Your task to perform on an android device: turn off javascript in the chrome app Image 0: 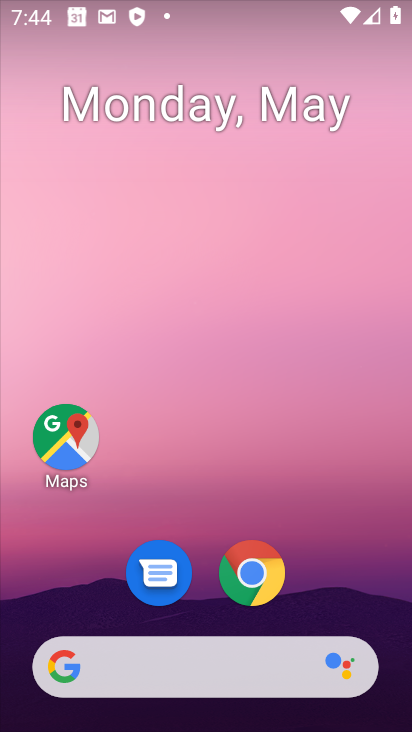
Step 0: drag from (228, 651) to (250, 261)
Your task to perform on an android device: turn off javascript in the chrome app Image 1: 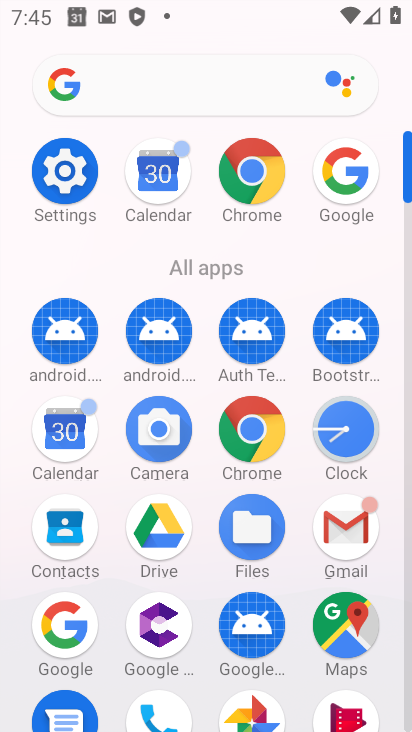
Step 1: click (270, 198)
Your task to perform on an android device: turn off javascript in the chrome app Image 2: 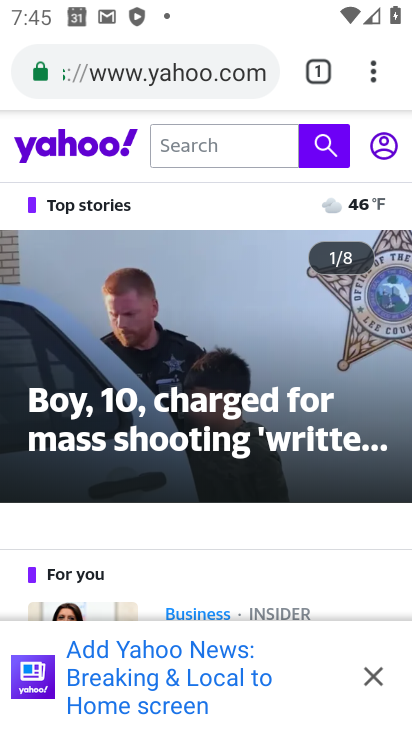
Step 2: click (370, 81)
Your task to perform on an android device: turn off javascript in the chrome app Image 3: 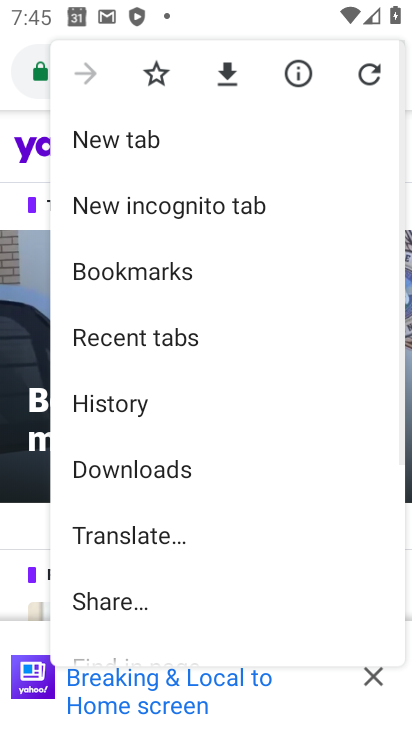
Step 3: drag from (200, 472) to (233, 108)
Your task to perform on an android device: turn off javascript in the chrome app Image 4: 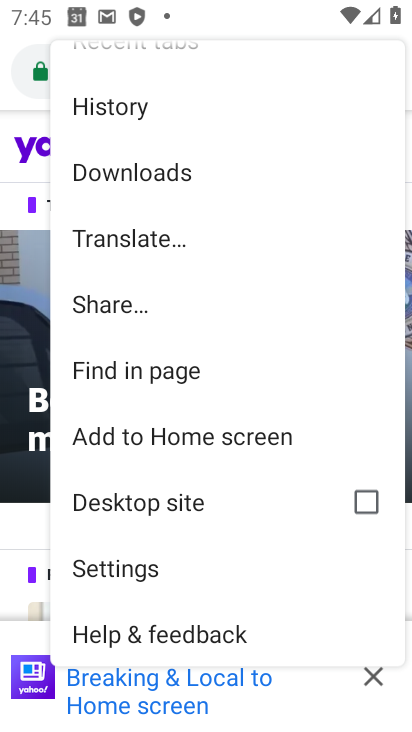
Step 4: click (128, 569)
Your task to perform on an android device: turn off javascript in the chrome app Image 5: 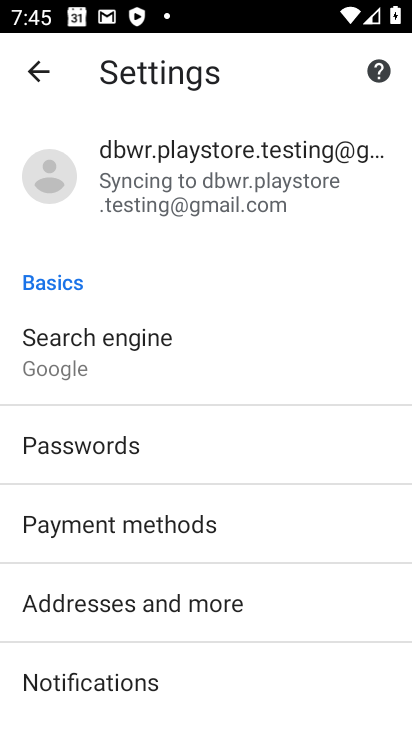
Step 5: drag from (166, 544) to (207, 282)
Your task to perform on an android device: turn off javascript in the chrome app Image 6: 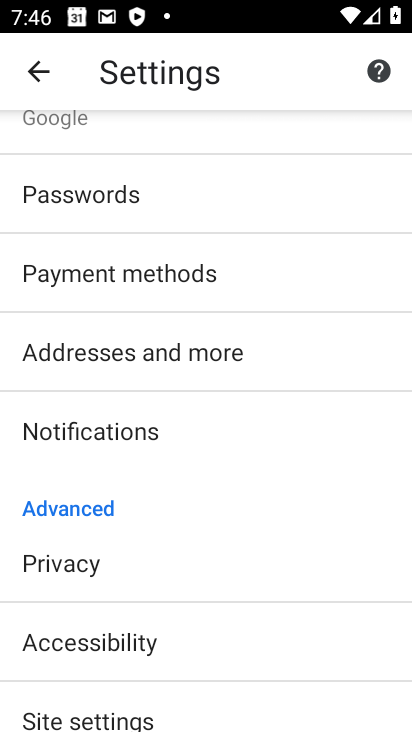
Step 6: drag from (144, 606) to (186, 371)
Your task to perform on an android device: turn off javascript in the chrome app Image 7: 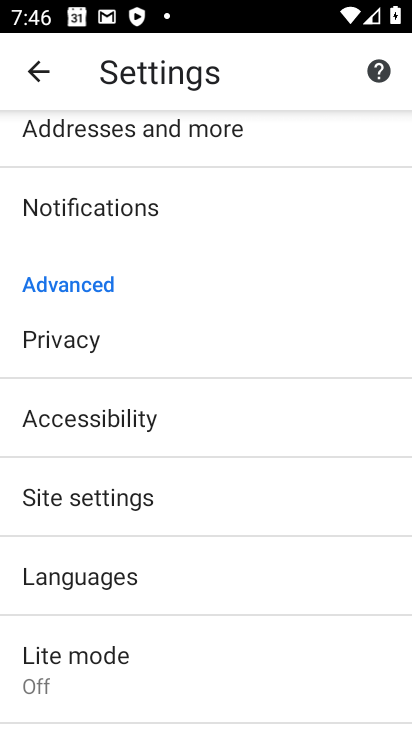
Step 7: click (145, 503)
Your task to perform on an android device: turn off javascript in the chrome app Image 8: 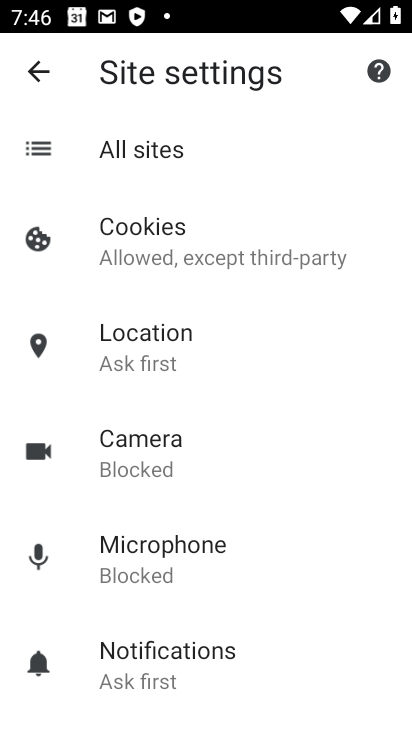
Step 8: drag from (178, 580) to (212, 361)
Your task to perform on an android device: turn off javascript in the chrome app Image 9: 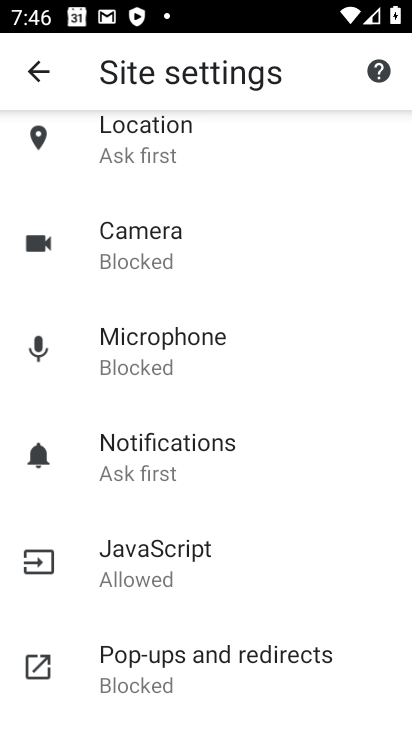
Step 9: click (186, 551)
Your task to perform on an android device: turn off javascript in the chrome app Image 10: 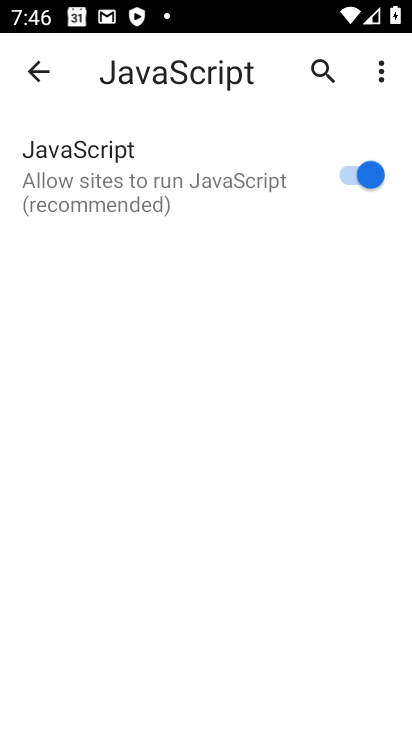
Step 10: click (334, 171)
Your task to perform on an android device: turn off javascript in the chrome app Image 11: 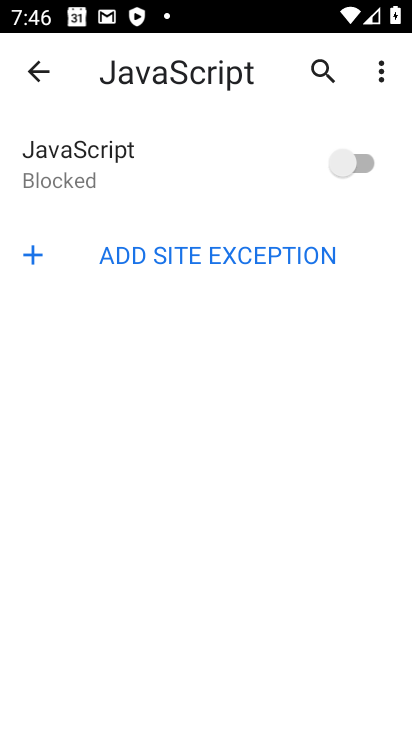
Step 11: task complete